Your task to perform on an android device: manage bookmarks in the chrome app Image 0: 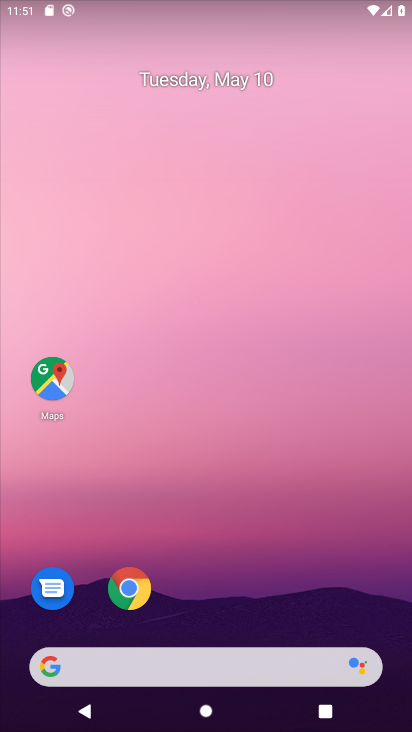
Step 0: click (120, 586)
Your task to perform on an android device: manage bookmarks in the chrome app Image 1: 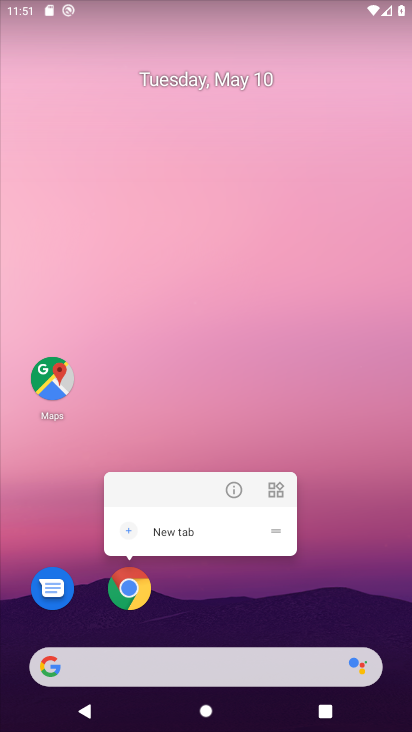
Step 1: click (130, 594)
Your task to perform on an android device: manage bookmarks in the chrome app Image 2: 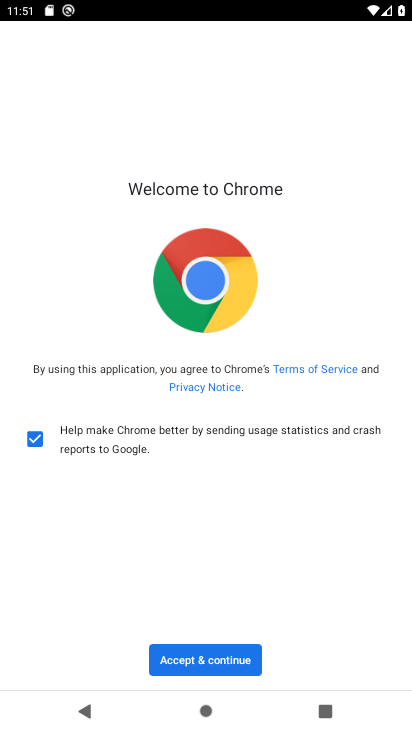
Step 2: click (241, 660)
Your task to perform on an android device: manage bookmarks in the chrome app Image 3: 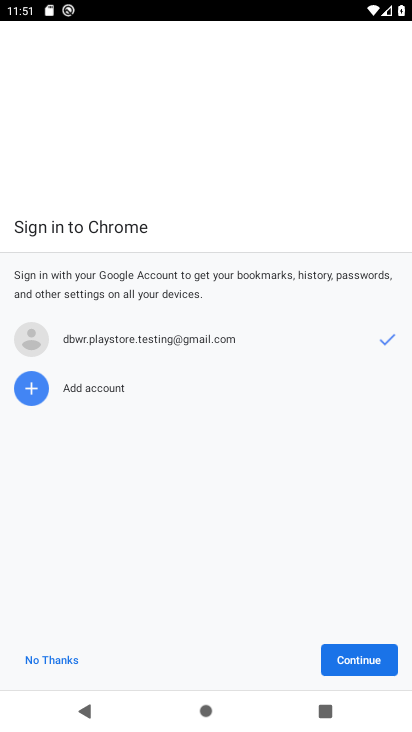
Step 3: click (353, 661)
Your task to perform on an android device: manage bookmarks in the chrome app Image 4: 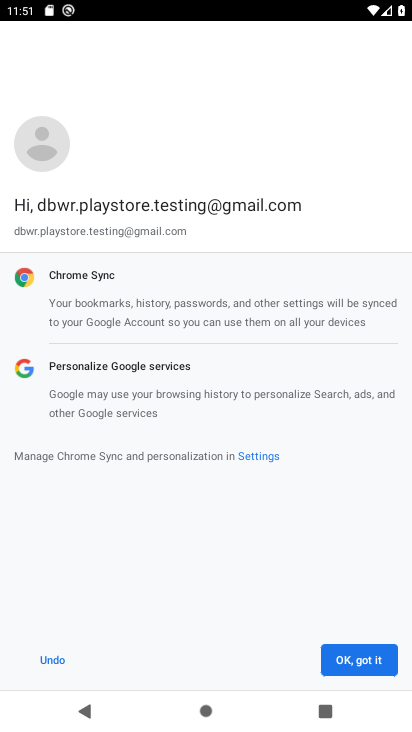
Step 4: click (351, 662)
Your task to perform on an android device: manage bookmarks in the chrome app Image 5: 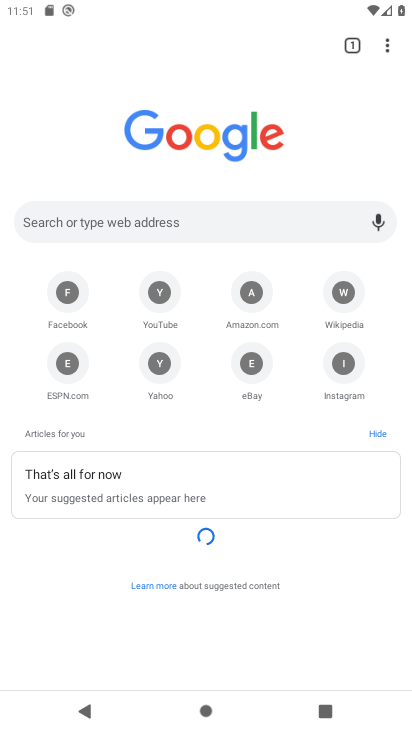
Step 5: click (389, 47)
Your task to perform on an android device: manage bookmarks in the chrome app Image 6: 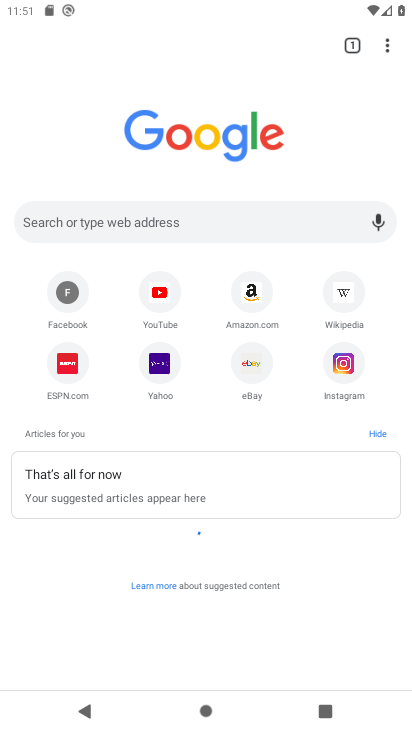
Step 6: click (388, 47)
Your task to perform on an android device: manage bookmarks in the chrome app Image 7: 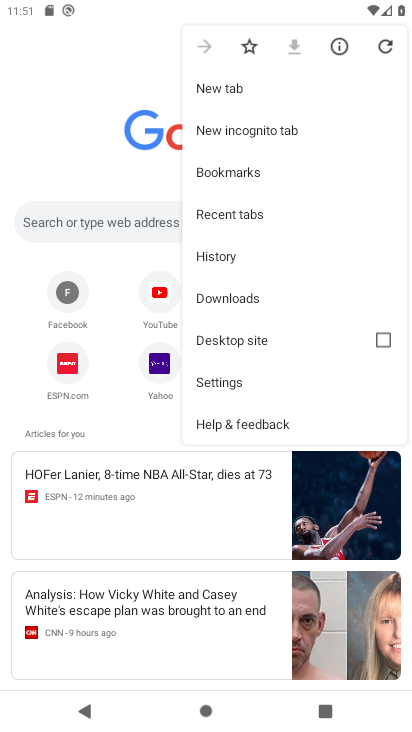
Step 7: click (237, 167)
Your task to perform on an android device: manage bookmarks in the chrome app Image 8: 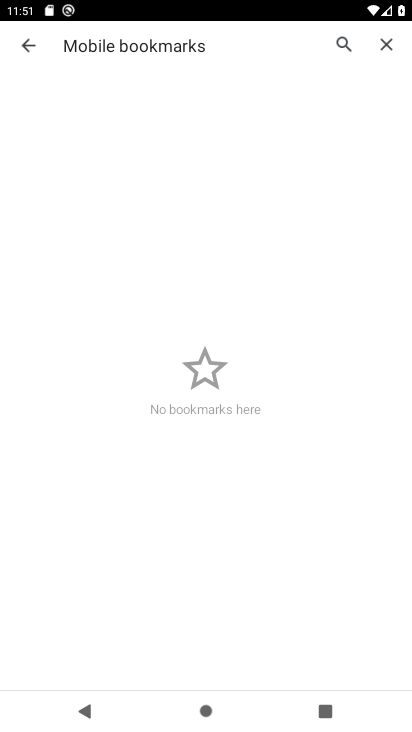
Step 8: task complete